Your task to perform on an android device: Go to Yahoo.com Image 0: 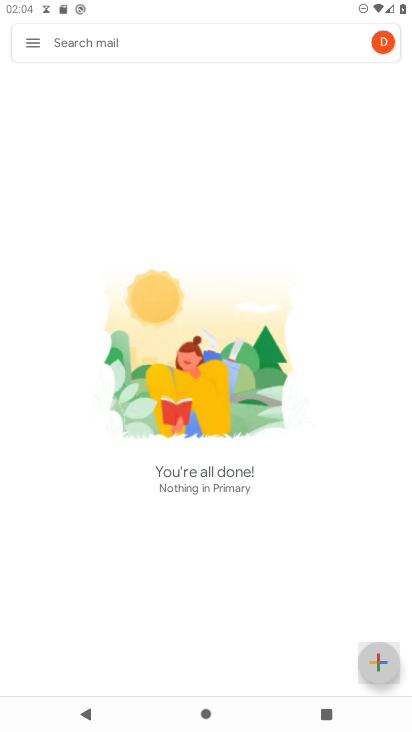
Step 0: press home button
Your task to perform on an android device: Go to Yahoo.com Image 1: 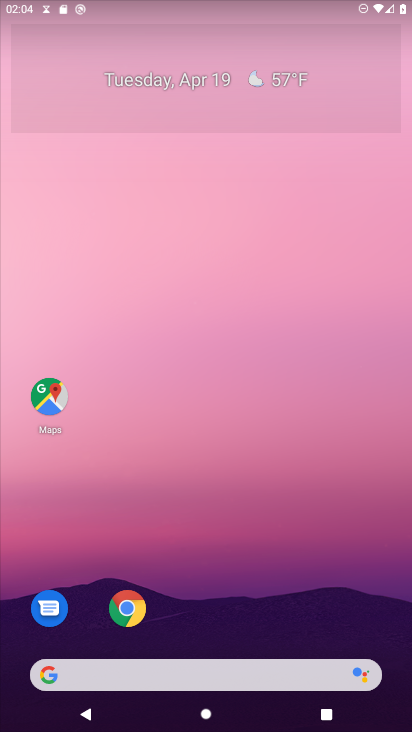
Step 1: click (131, 613)
Your task to perform on an android device: Go to Yahoo.com Image 2: 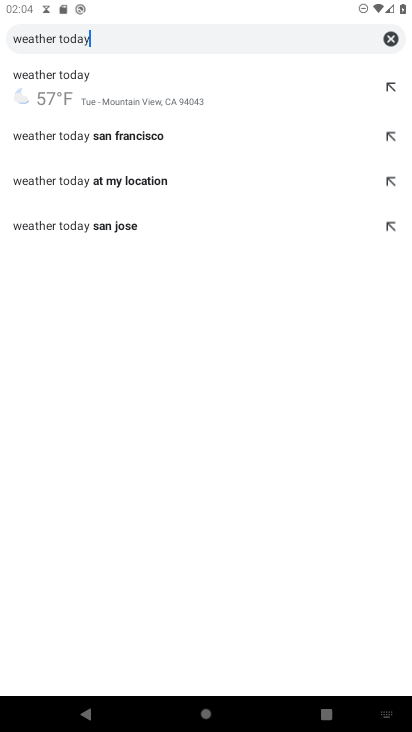
Step 2: click (396, 39)
Your task to perform on an android device: Go to Yahoo.com Image 3: 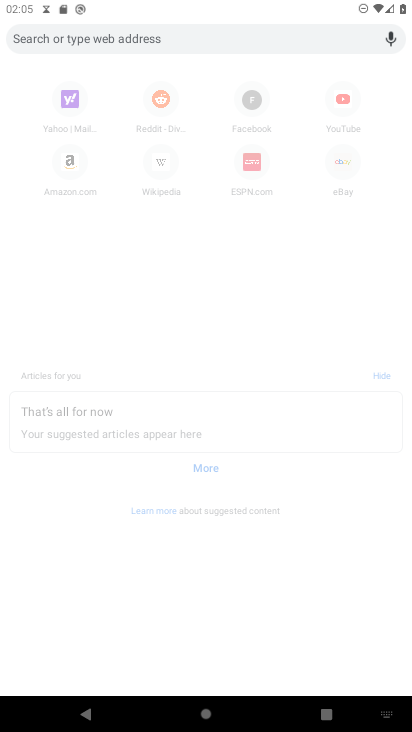
Step 3: click (59, 101)
Your task to perform on an android device: Go to Yahoo.com Image 4: 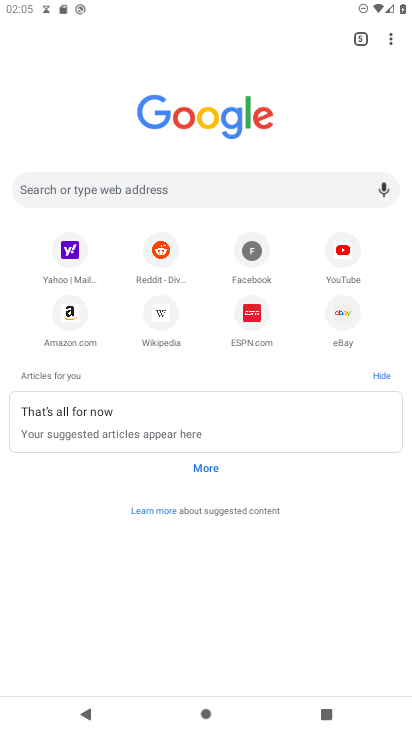
Step 4: click (356, 37)
Your task to perform on an android device: Go to Yahoo.com Image 5: 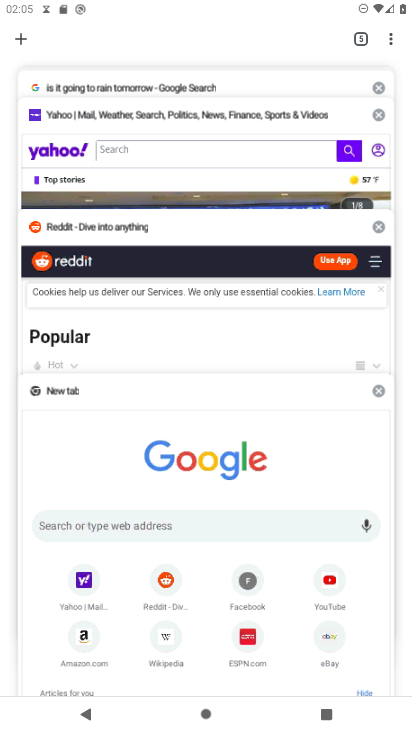
Step 5: click (140, 132)
Your task to perform on an android device: Go to Yahoo.com Image 6: 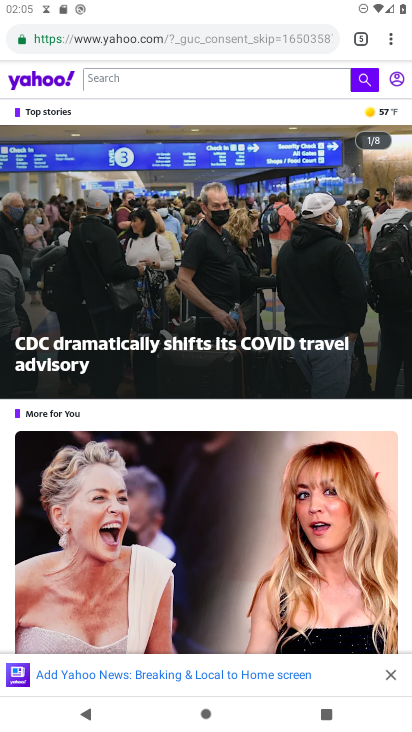
Step 6: task complete